Your task to perform on an android device: Open wifi settings Image 0: 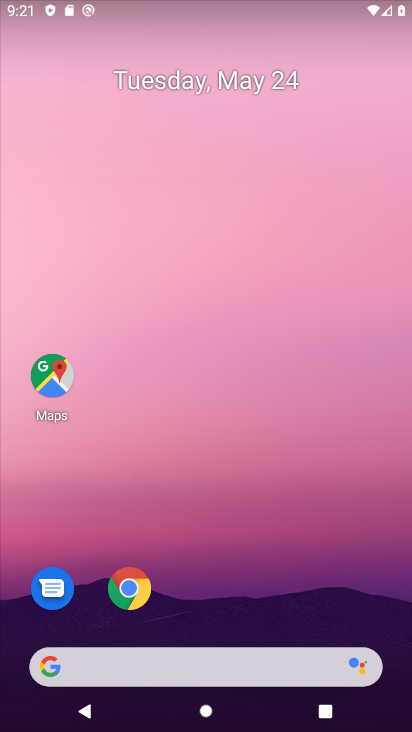
Step 0: drag from (104, 41) to (203, 626)
Your task to perform on an android device: Open wifi settings Image 1: 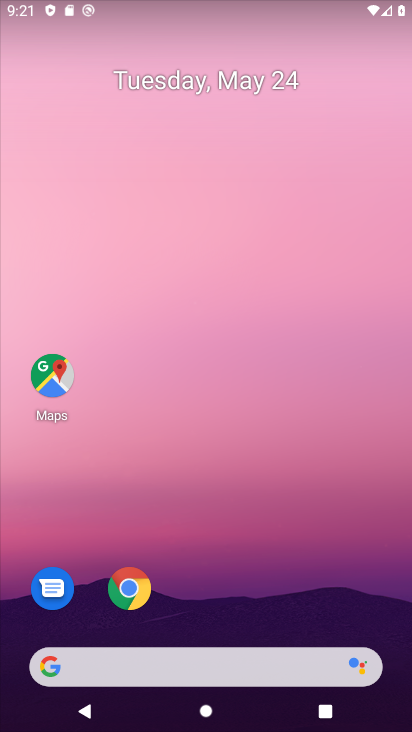
Step 1: drag from (54, 10) to (132, 613)
Your task to perform on an android device: Open wifi settings Image 2: 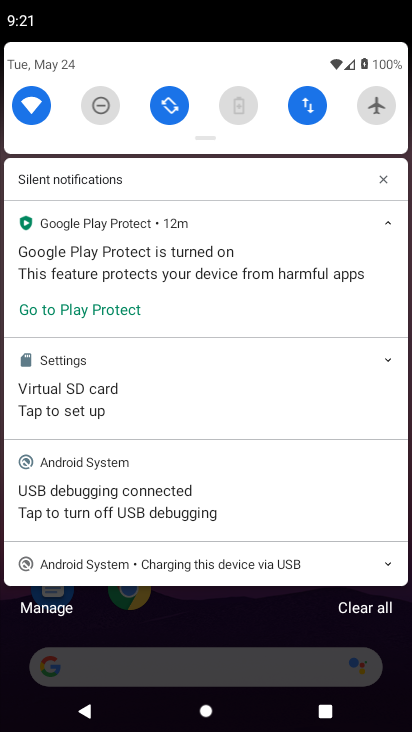
Step 2: click (41, 103)
Your task to perform on an android device: Open wifi settings Image 3: 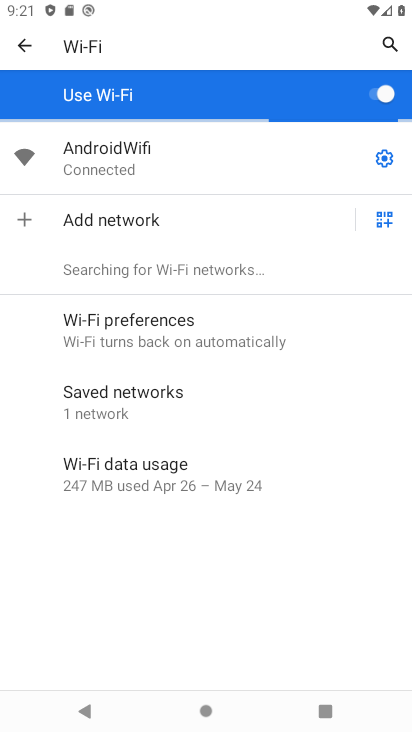
Step 3: task complete